Your task to perform on an android device: delete browsing data in the chrome app Image 0: 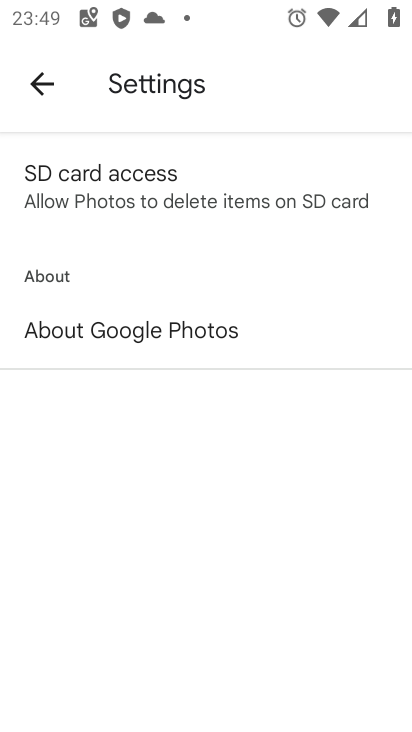
Step 0: press home button
Your task to perform on an android device: delete browsing data in the chrome app Image 1: 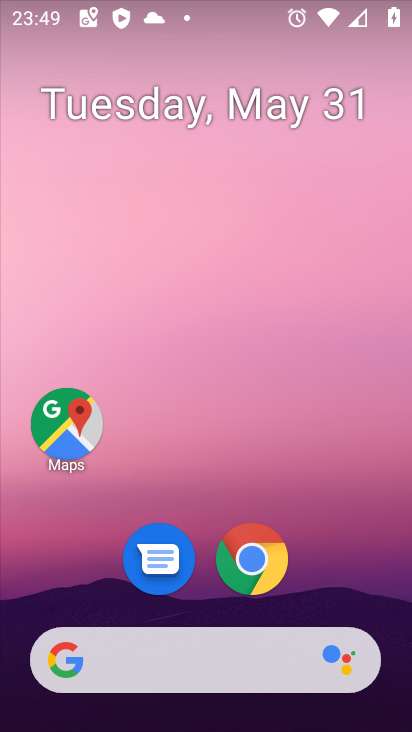
Step 1: click (253, 563)
Your task to perform on an android device: delete browsing data in the chrome app Image 2: 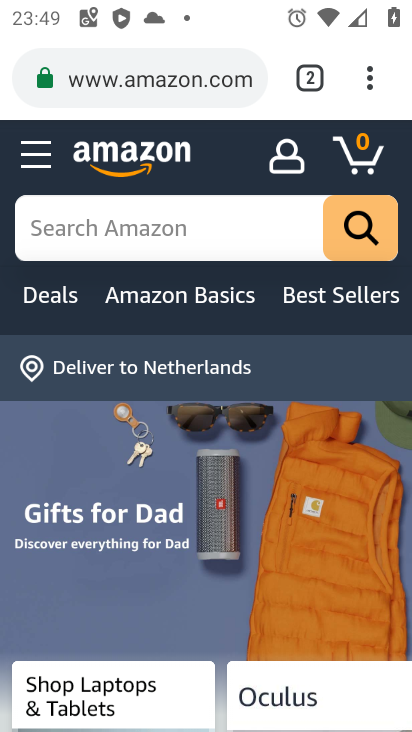
Step 2: click (367, 76)
Your task to perform on an android device: delete browsing data in the chrome app Image 3: 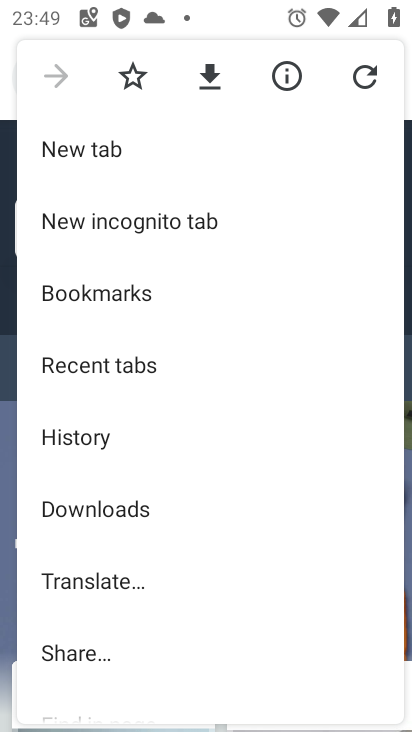
Step 3: drag from (289, 640) to (261, 133)
Your task to perform on an android device: delete browsing data in the chrome app Image 4: 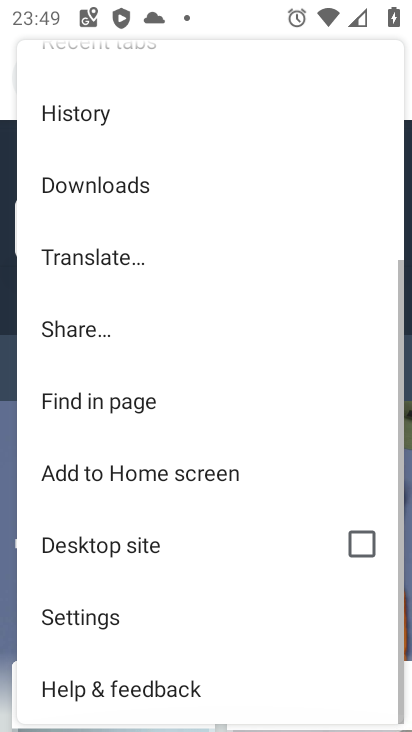
Step 4: click (63, 628)
Your task to perform on an android device: delete browsing data in the chrome app Image 5: 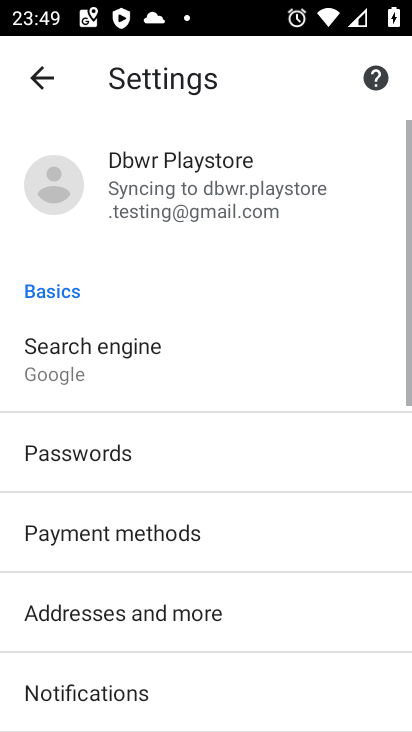
Step 5: drag from (230, 626) to (213, 161)
Your task to perform on an android device: delete browsing data in the chrome app Image 6: 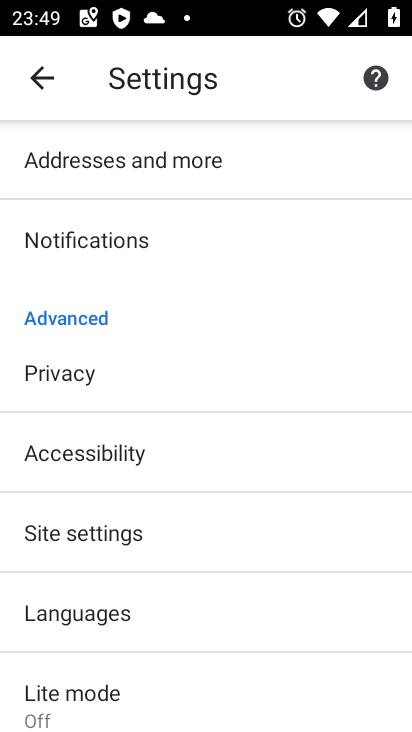
Step 6: click (67, 387)
Your task to perform on an android device: delete browsing data in the chrome app Image 7: 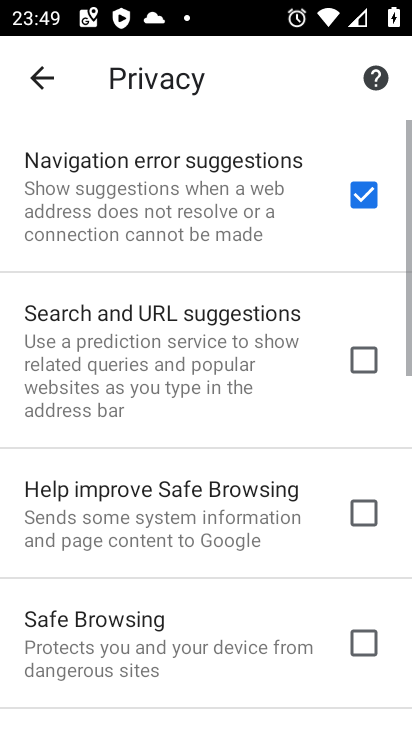
Step 7: drag from (243, 599) to (170, 48)
Your task to perform on an android device: delete browsing data in the chrome app Image 8: 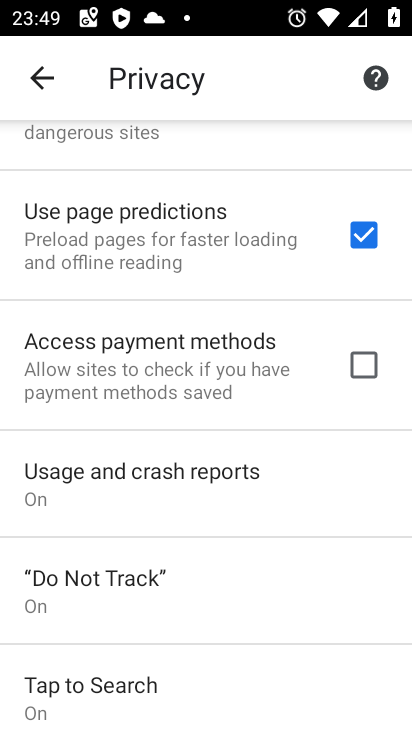
Step 8: drag from (174, 659) to (168, 181)
Your task to perform on an android device: delete browsing data in the chrome app Image 9: 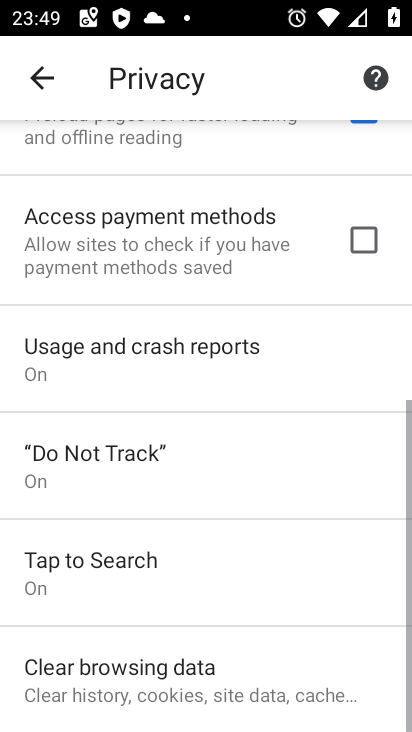
Step 9: click (182, 689)
Your task to perform on an android device: delete browsing data in the chrome app Image 10: 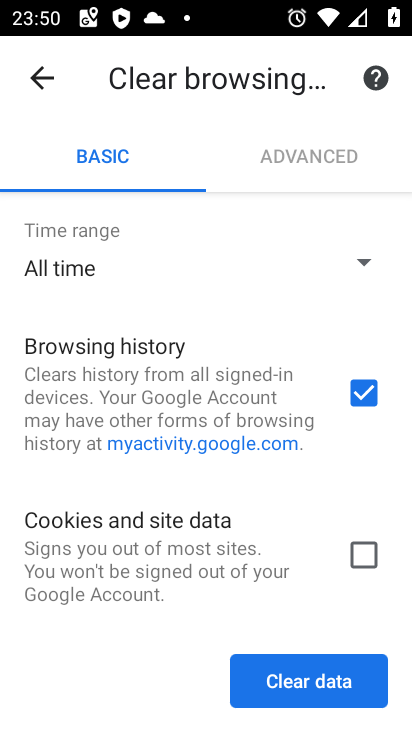
Step 10: drag from (266, 507) to (300, 265)
Your task to perform on an android device: delete browsing data in the chrome app Image 11: 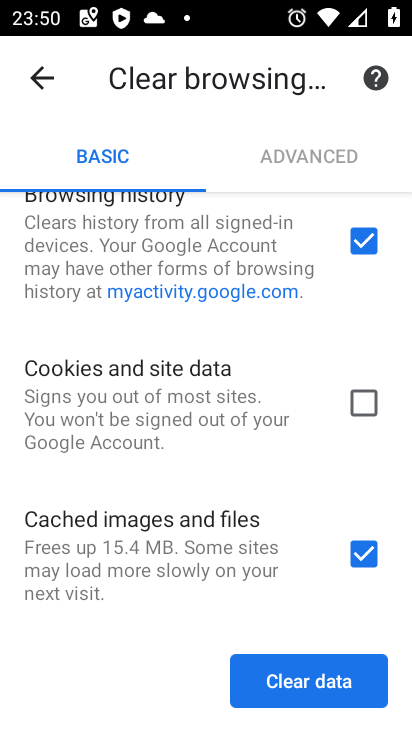
Step 11: click (365, 550)
Your task to perform on an android device: delete browsing data in the chrome app Image 12: 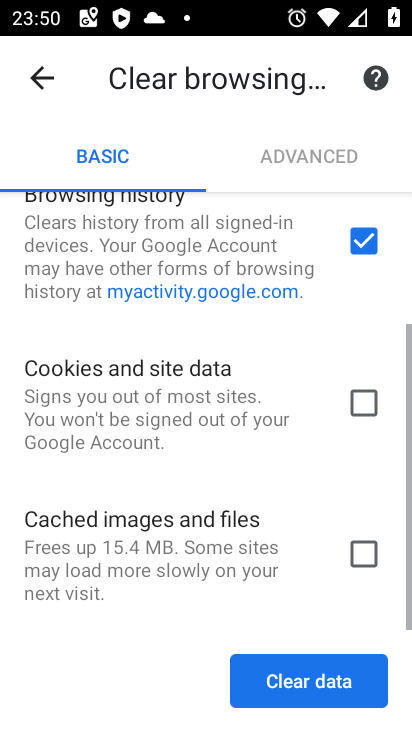
Step 12: click (311, 684)
Your task to perform on an android device: delete browsing data in the chrome app Image 13: 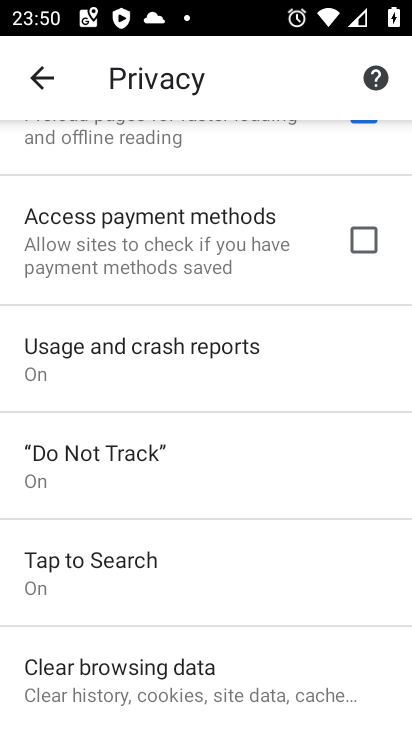
Step 13: task complete